Your task to perform on an android device: Open Yahoo.com Image 0: 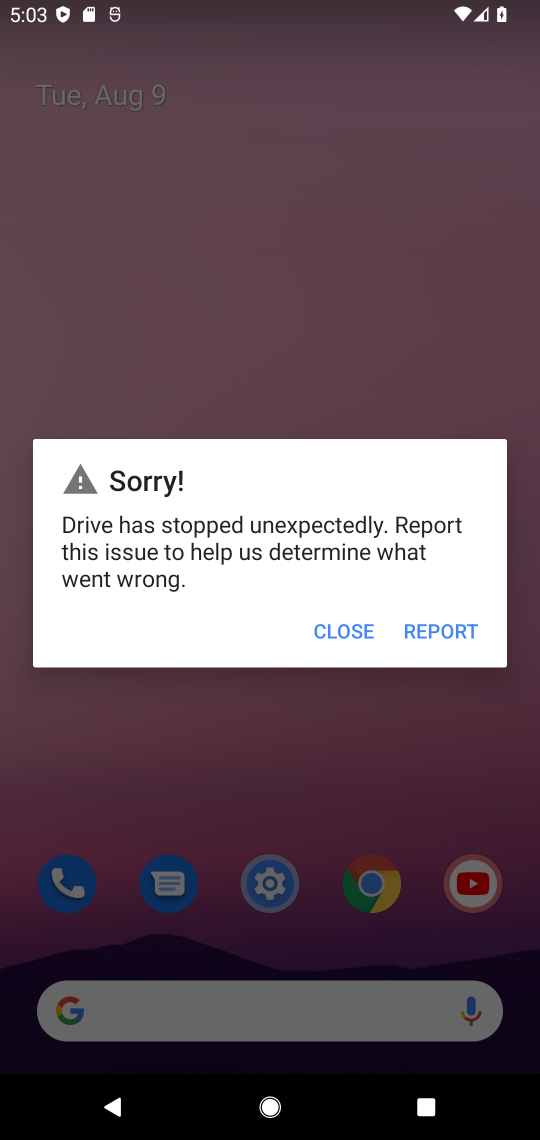
Step 0: click (330, 628)
Your task to perform on an android device: Open Yahoo.com Image 1: 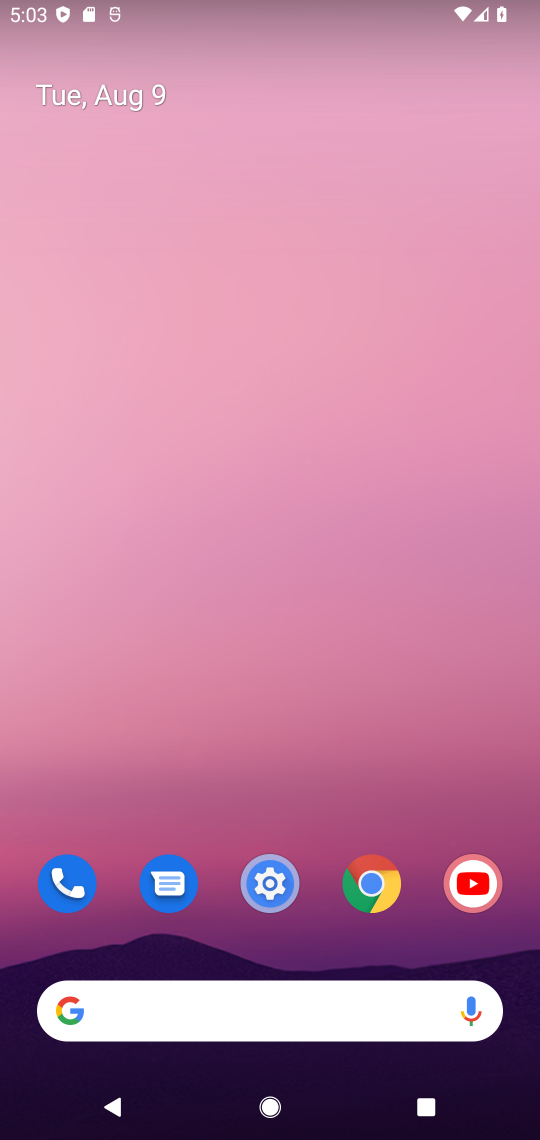
Step 1: click (377, 877)
Your task to perform on an android device: Open Yahoo.com Image 2: 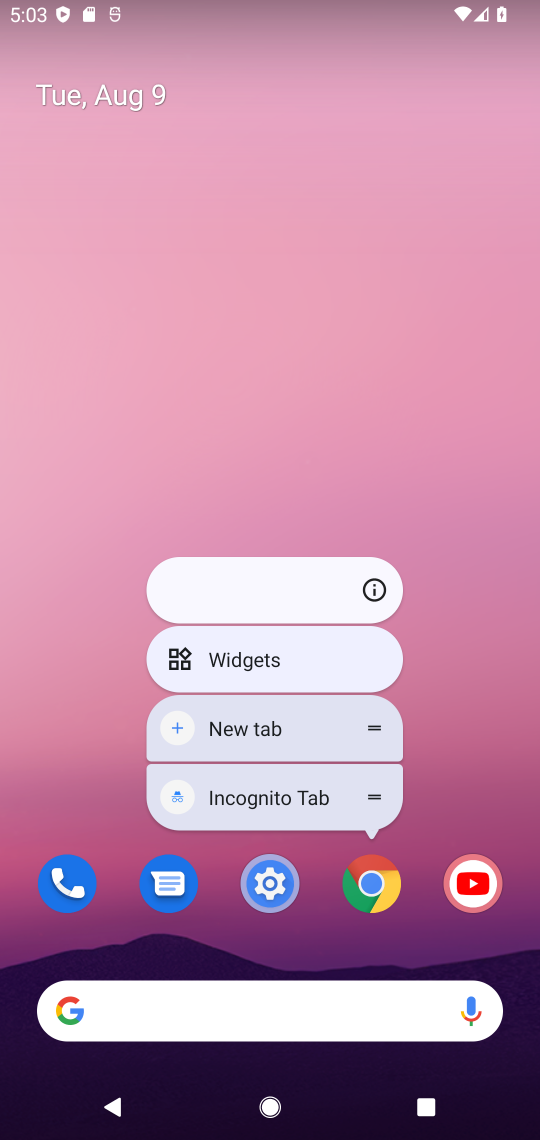
Step 2: click (377, 872)
Your task to perform on an android device: Open Yahoo.com Image 3: 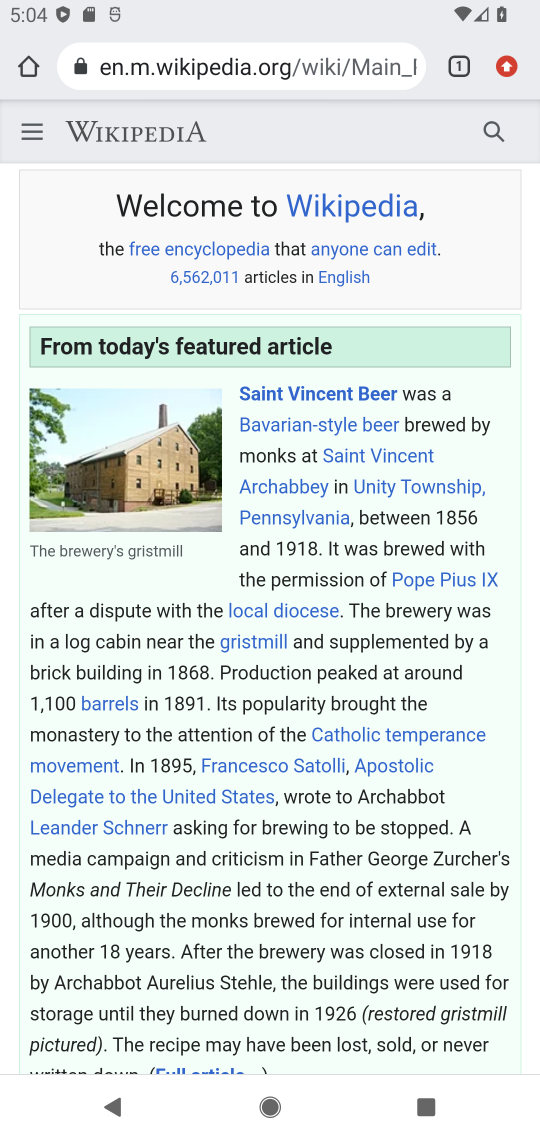
Step 3: click (459, 64)
Your task to perform on an android device: Open Yahoo.com Image 4: 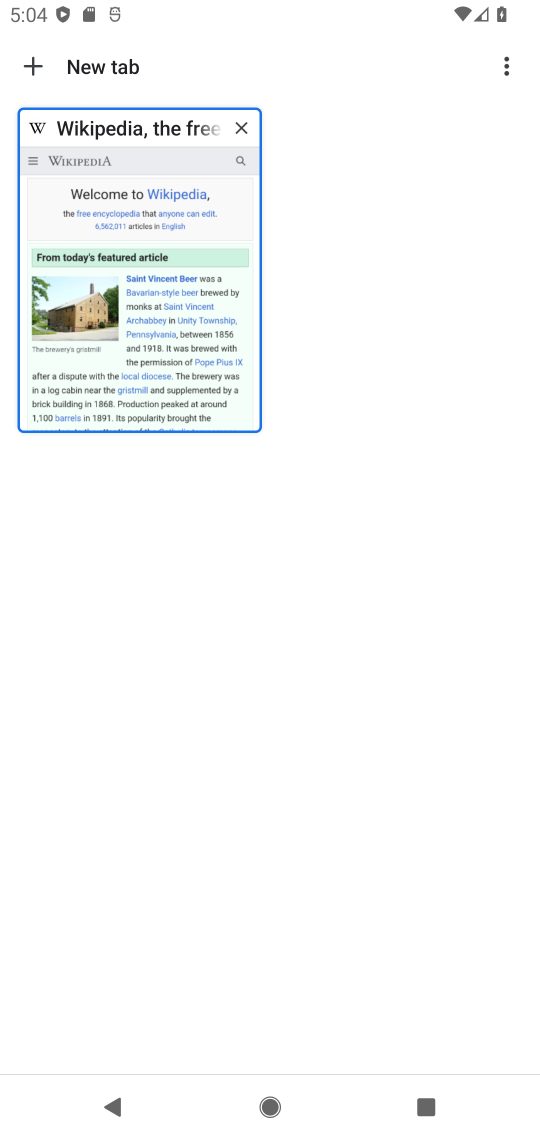
Step 4: click (451, 68)
Your task to perform on an android device: Open Yahoo.com Image 5: 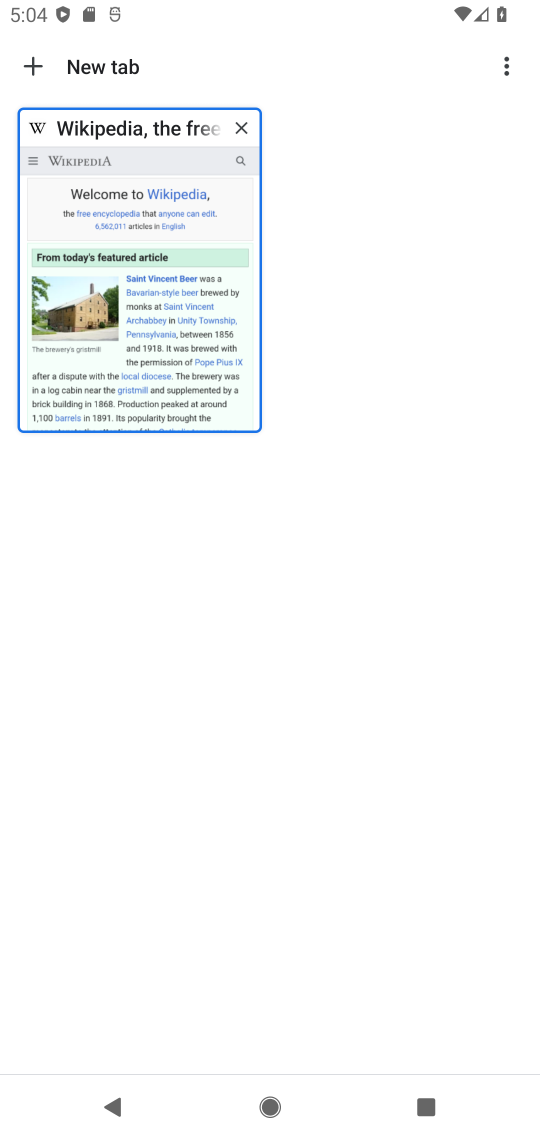
Step 5: click (43, 65)
Your task to perform on an android device: Open Yahoo.com Image 6: 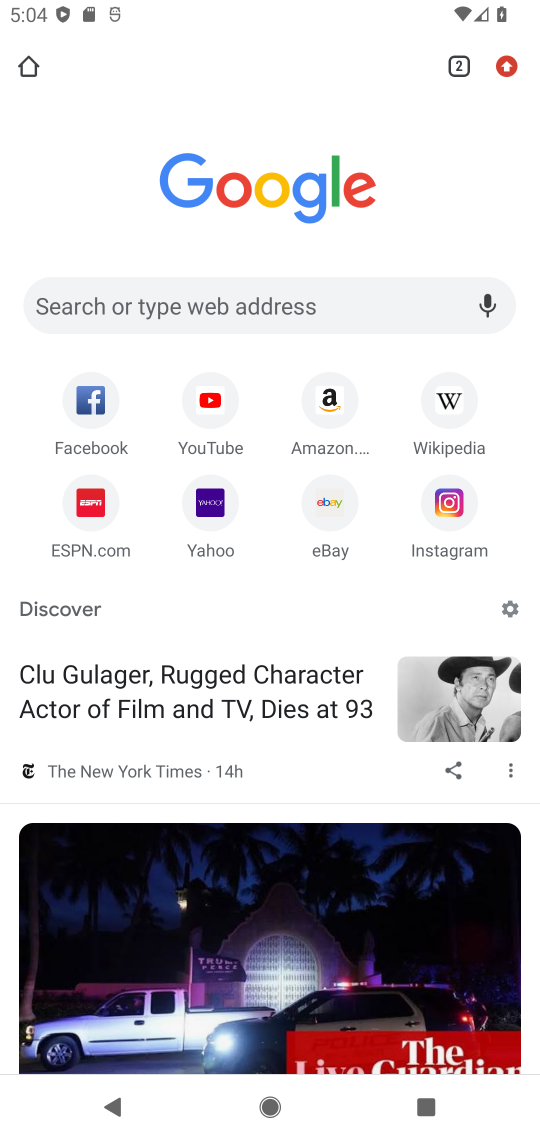
Step 6: click (212, 503)
Your task to perform on an android device: Open Yahoo.com Image 7: 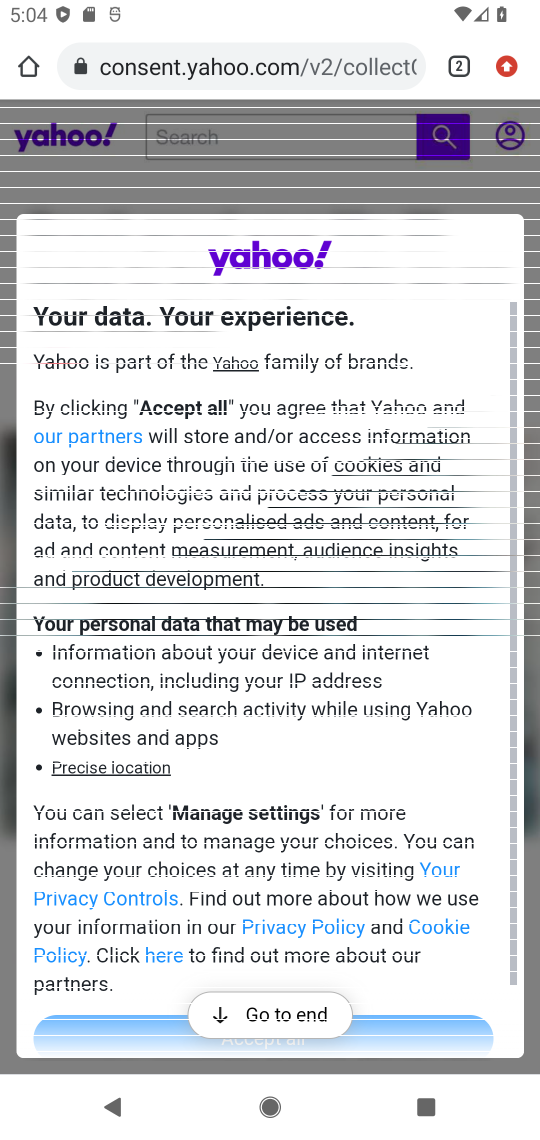
Step 7: task complete